Your task to perform on an android device: Open Reddit.com Image 0: 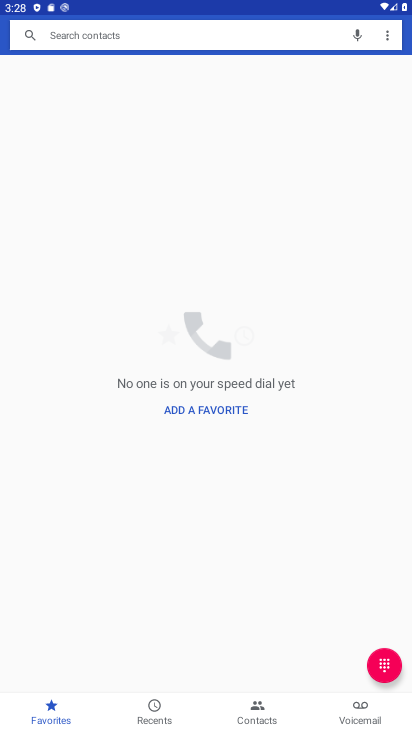
Step 0: press home button
Your task to perform on an android device: Open Reddit.com Image 1: 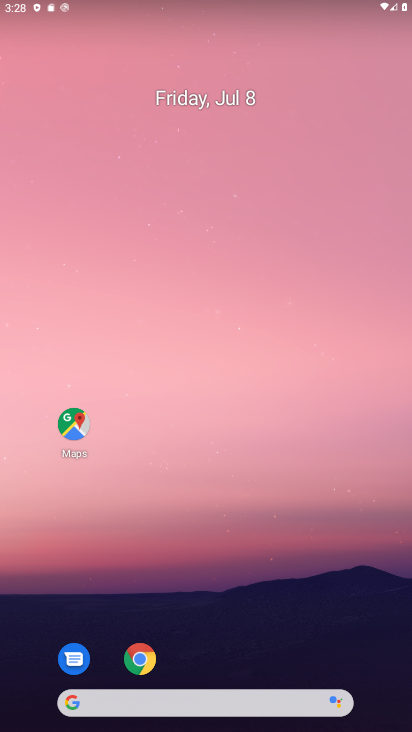
Step 1: drag from (196, 600) to (202, 79)
Your task to perform on an android device: Open Reddit.com Image 2: 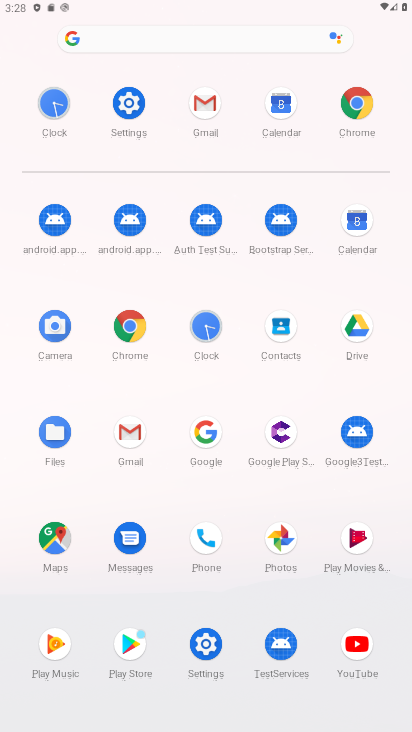
Step 2: click (136, 336)
Your task to perform on an android device: Open Reddit.com Image 3: 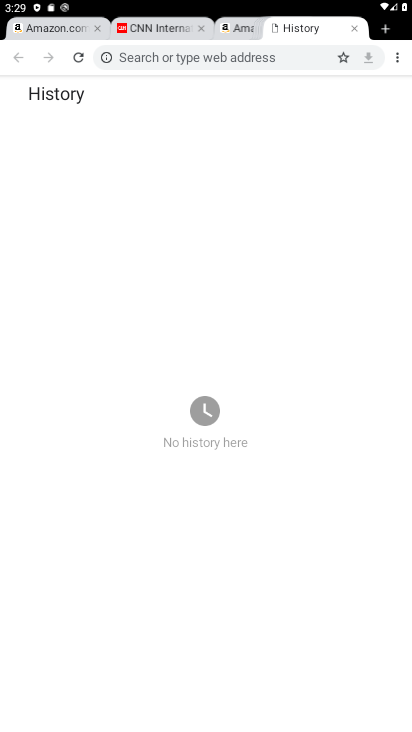
Step 3: click (189, 63)
Your task to perform on an android device: Open Reddit.com Image 4: 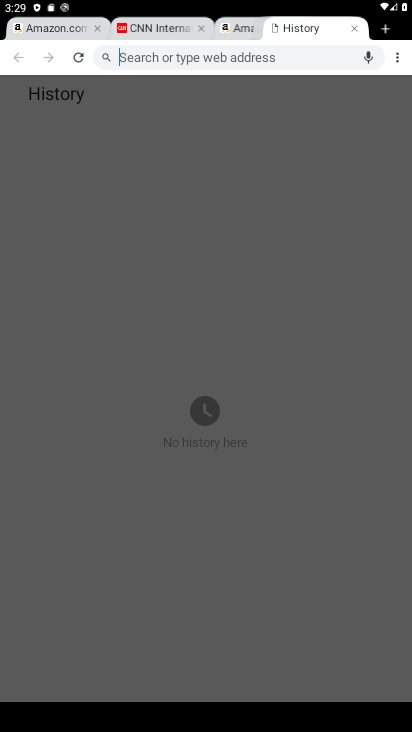
Step 4: type "Reddit.com"
Your task to perform on an android device: Open Reddit.com Image 5: 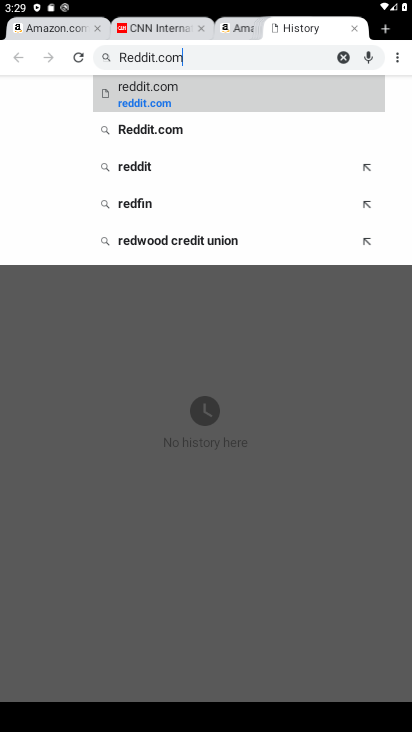
Step 5: type ""
Your task to perform on an android device: Open Reddit.com Image 6: 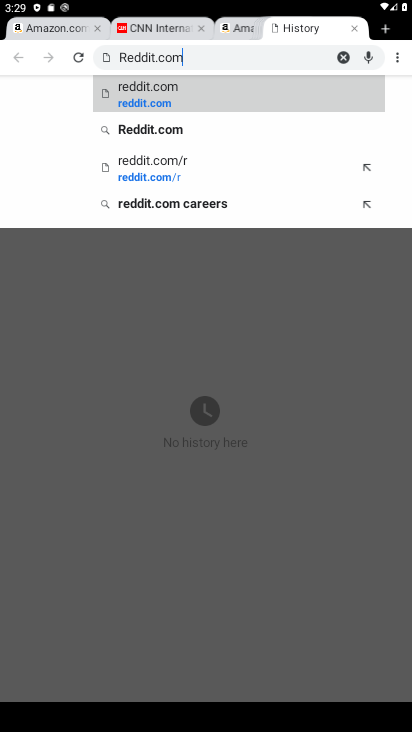
Step 6: click (188, 110)
Your task to perform on an android device: Open Reddit.com Image 7: 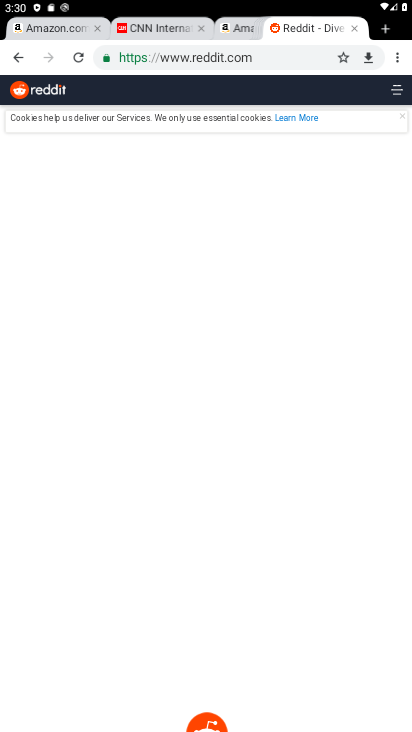
Step 7: task complete